Your task to perform on an android device: Open my contact list Image 0: 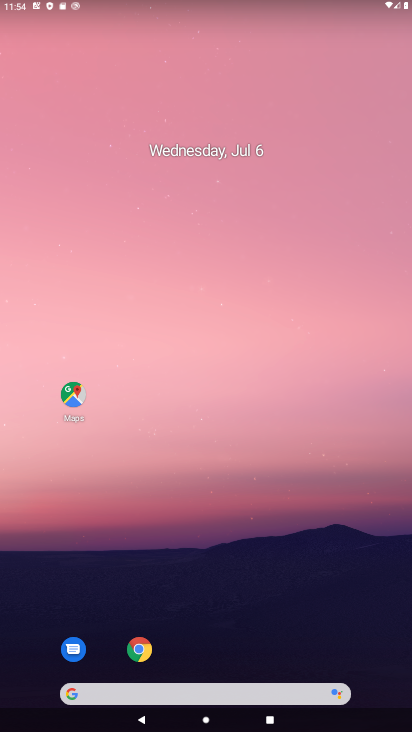
Step 0: drag from (13, 710) to (30, 593)
Your task to perform on an android device: Open my contact list Image 1: 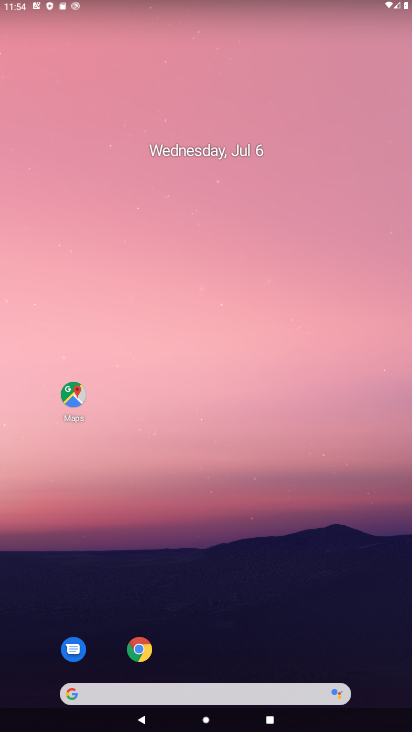
Step 1: click (169, 0)
Your task to perform on an android device: Open my contact list Image 2: 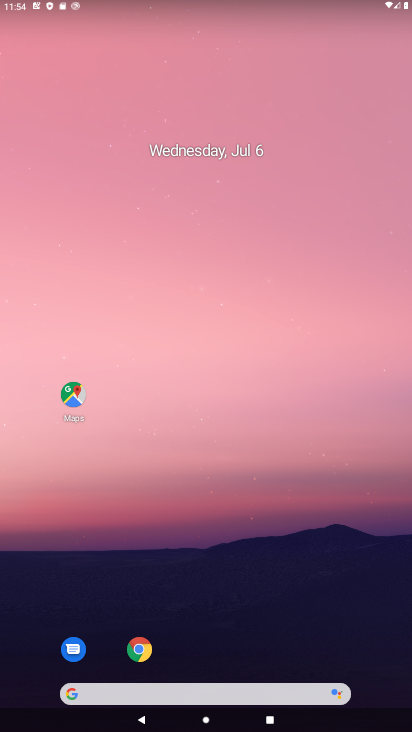
Step 2: drag from (45, 696) to (221, 34)
Your task to perform on an android device: Open my contact list Image 3: 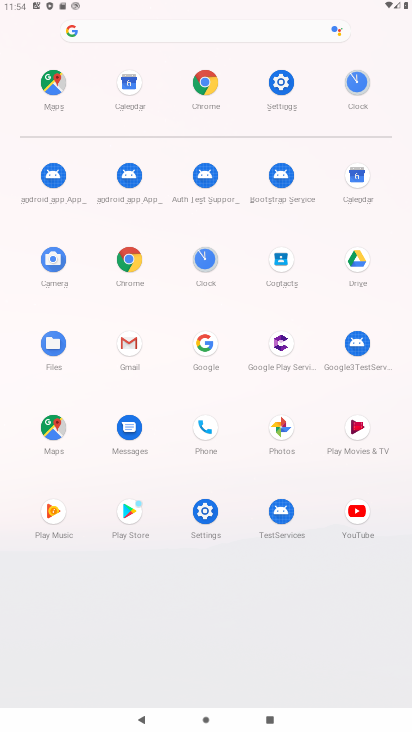
Step 3: click (288, 249)
Your task to perform on an android device: Open my contact list Image 4: 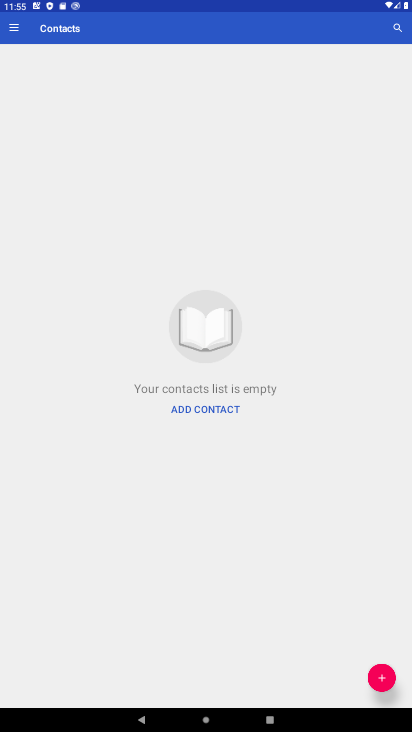
Step 4: task complete